Your task to perform on an android device: Open location settings Image 0: 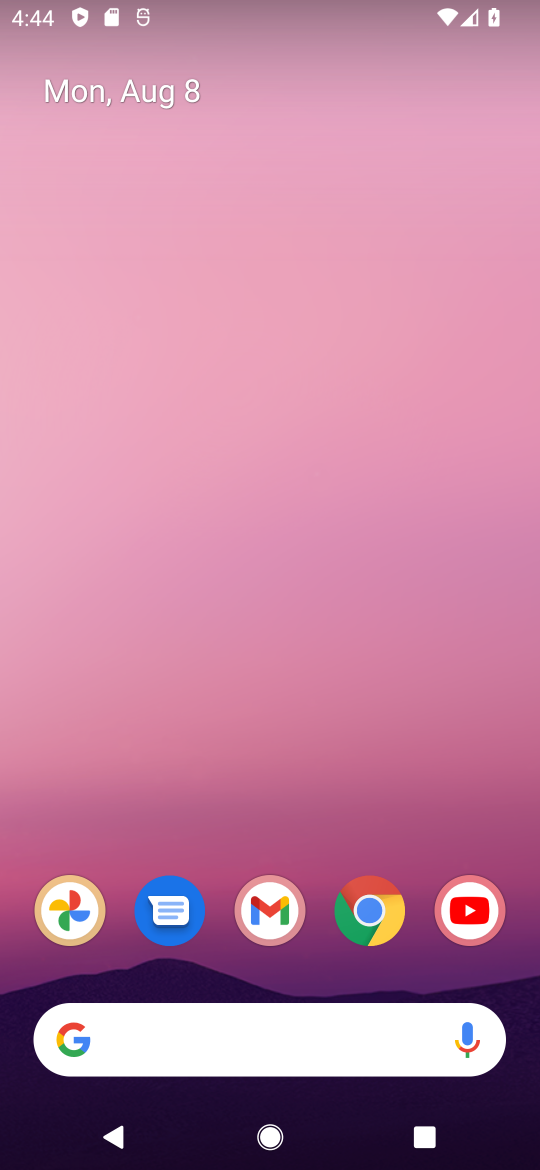
Step 0: drag from (194, 1042) to (349, 486)
Your task to perform on an android device: Open location settings Image 1: 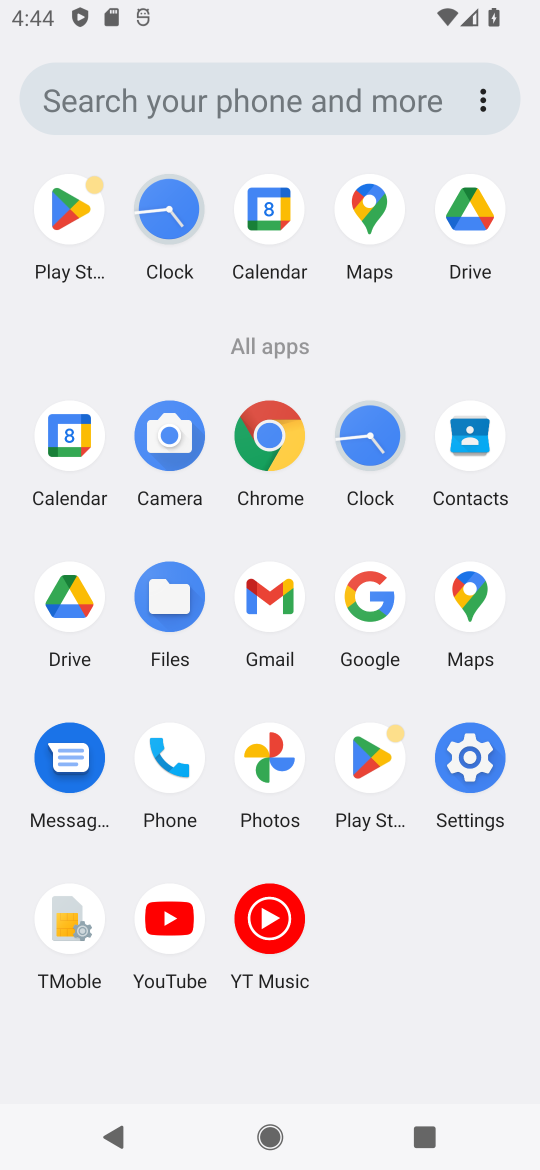
Step 1: click (465, 760)
Your task to perform on an android device: Open location settings Image 2: 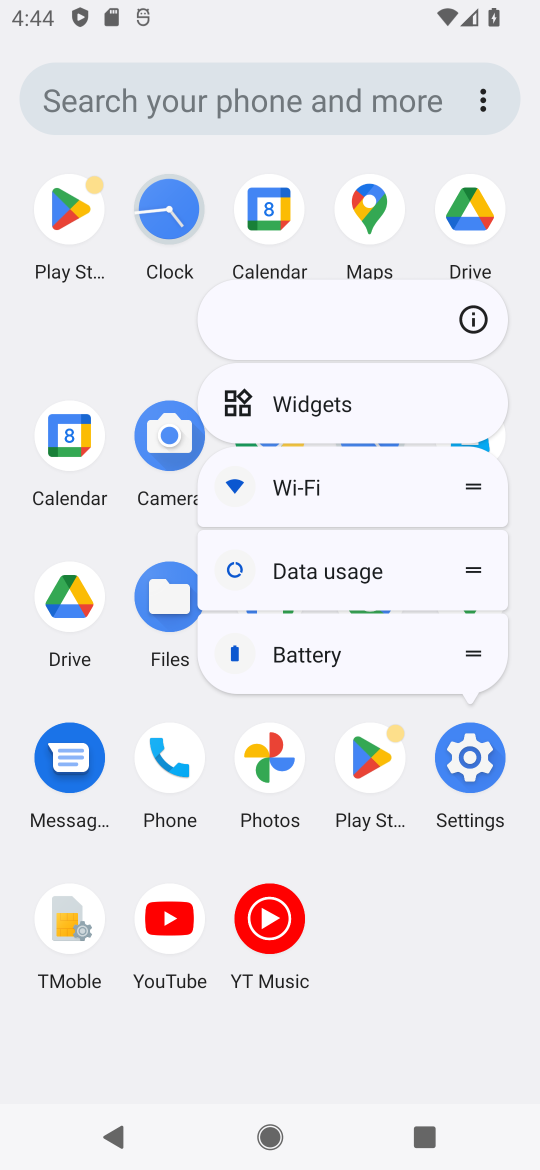
Step 2: click (468, 760)
Your task to perform on an android device: Open location settings Image 3: 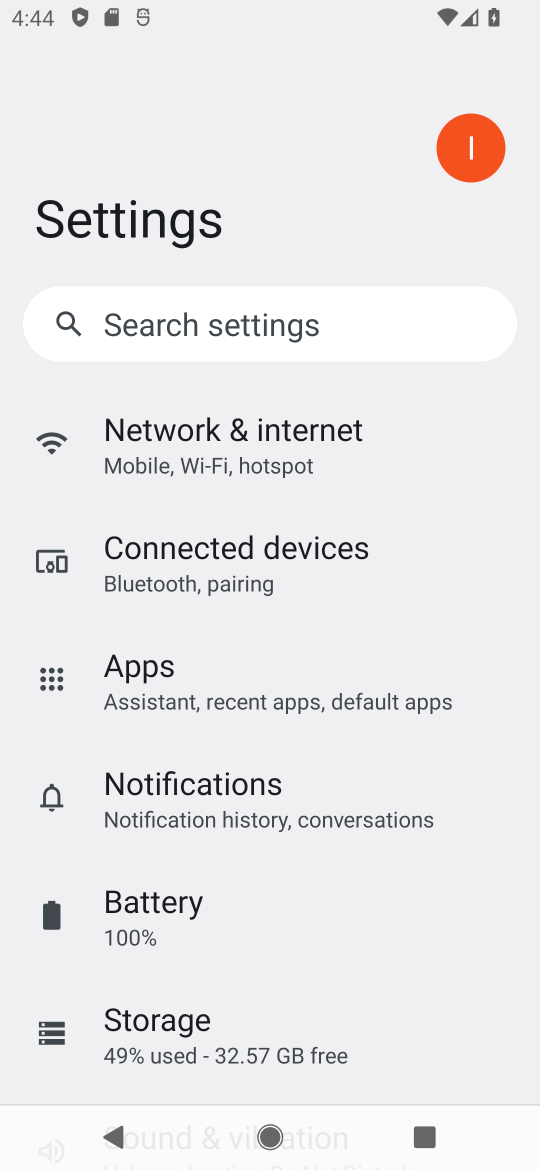
Step 3: drag from (257, 932) to (337, 625)
Your task to perform on an android device: Open location settings Image 4: 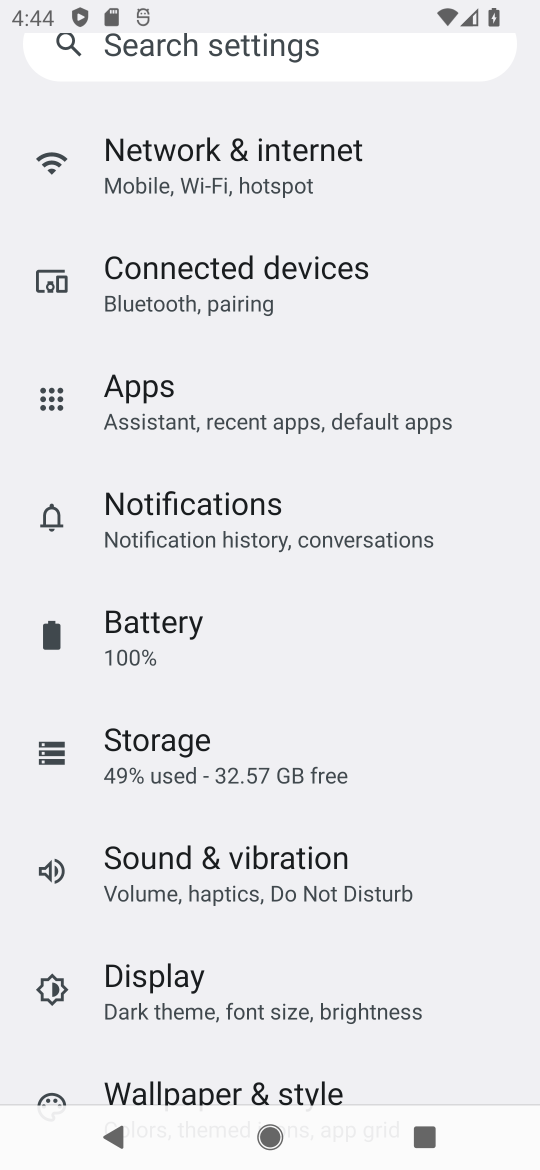
Step 4: drag from (238, 788) to (310, 485)
Your task to perform on an android device: Open location settings Image 5: 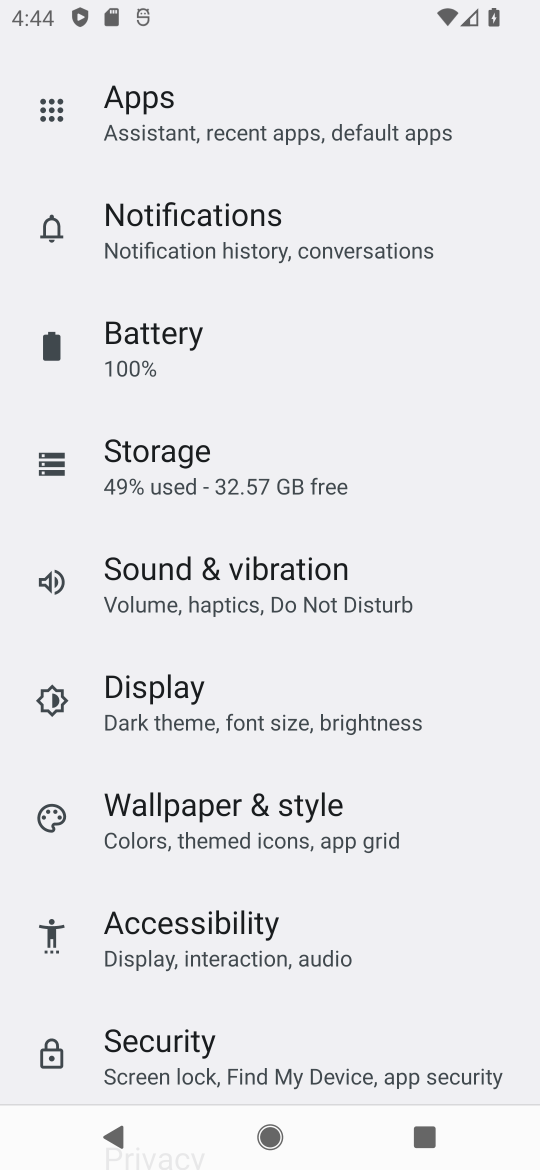
Step 5: drag from (264, 652) to (309, 516)
Your task to perform on an android device: Open location settings Image 6: 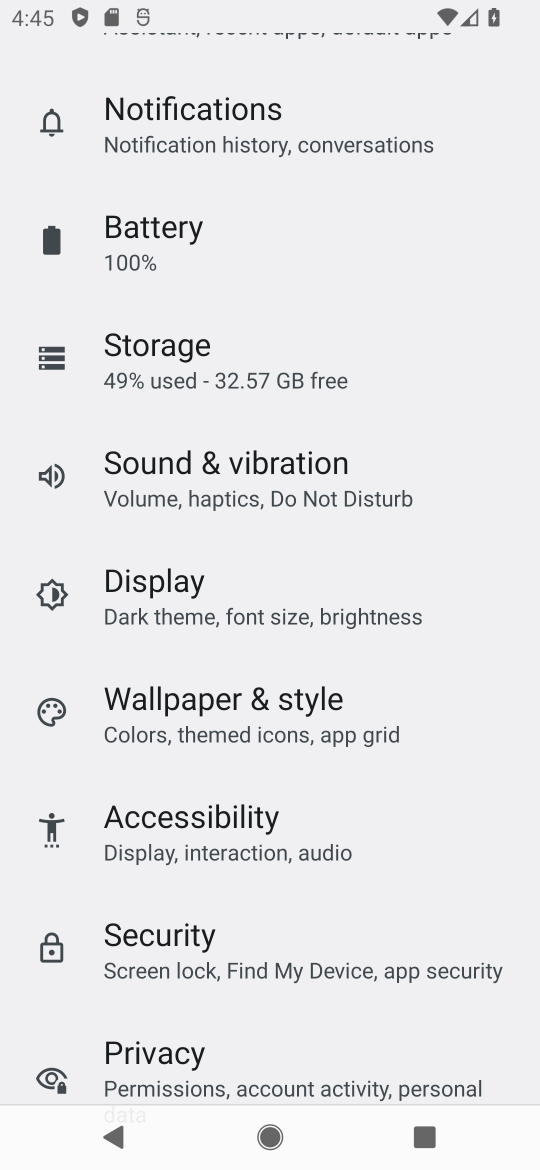
Step 6: drag from (199, 756) to (275, 570)
Your task to perform on an android device: Open location settings Image 7: 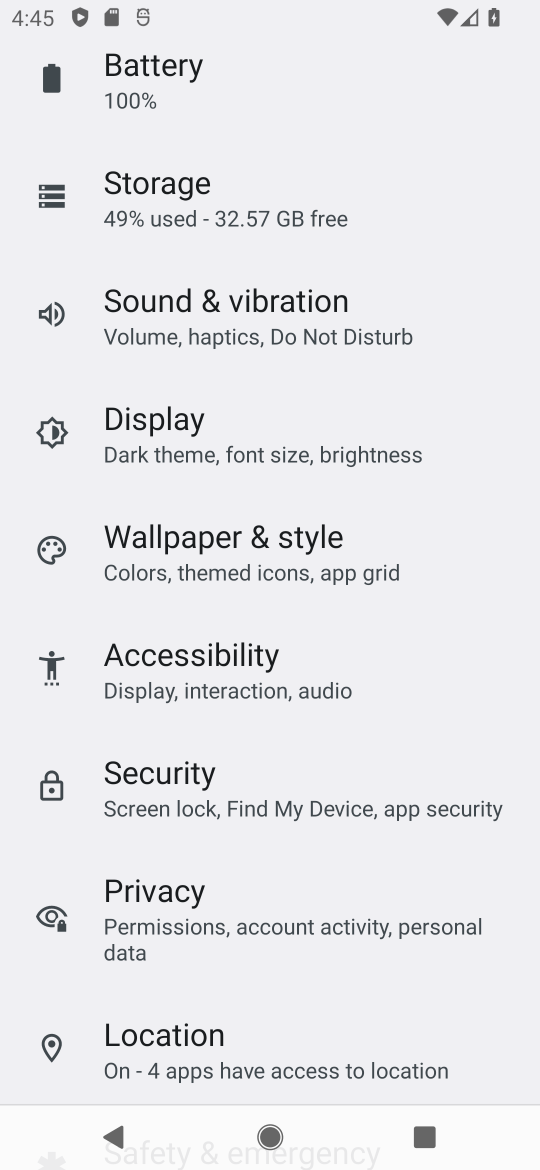
Step 7: click (222, 1036)
Your task to perform on an android device: Open location settings Image 8: 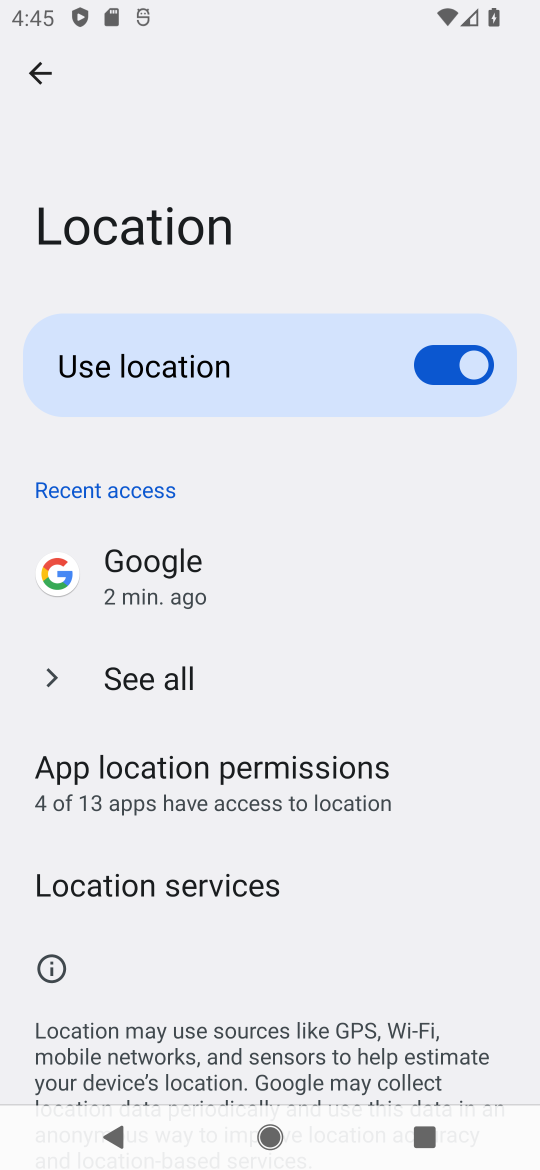
Step 8: task complete